Your task to perform on an android device: Open calendar and show me the fourth week of next month Image 0: 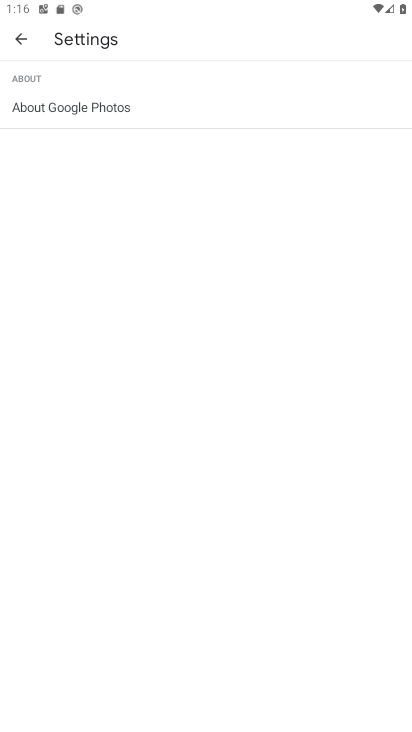
Step 0: press home button
Your task to perform on an android device: Open calendar and show me the fourth week of next month Image 1: 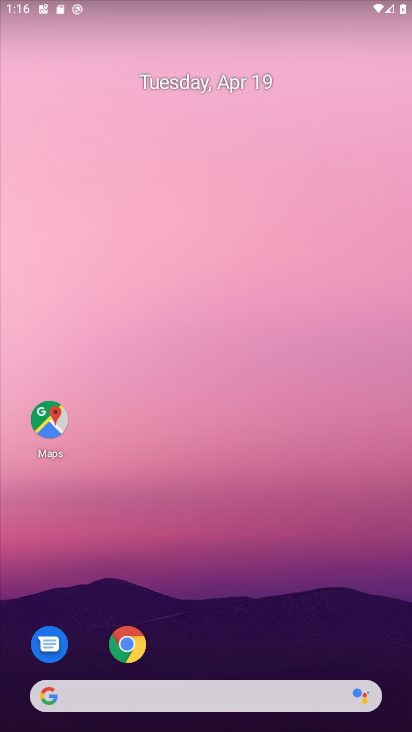
Step 1: drag from (153, 579) to (341, 64)
Your task to perform on an android device: Open calendar and show me the fourth week of next month Image 2: 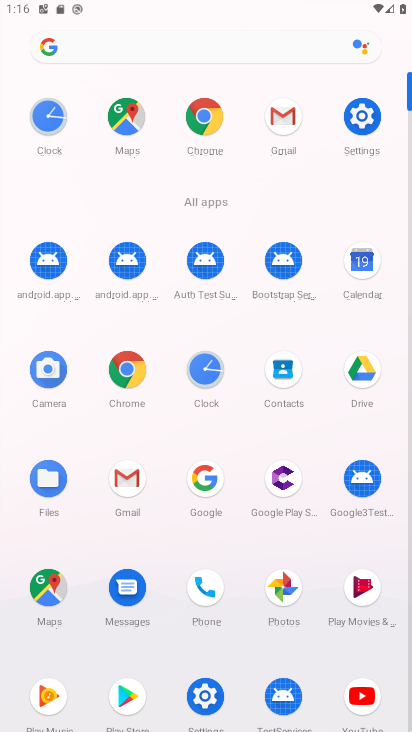
Step 2: click (359, 271)
Your task to perform on an android device: Open calendar and show me the fourth week of next month Image 3: 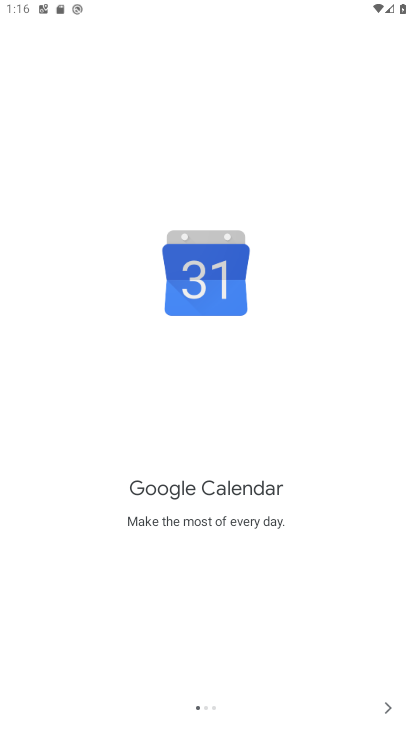
Step 3: click (387, 706)
Your task to perform on an android device: Open calendar and show me the fourth week of next month Image 4: 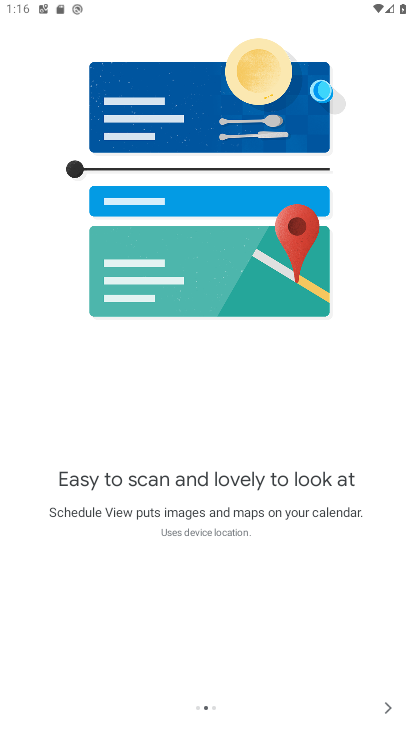
Step 4: click (388, 706)
Your task to perform on an android device: Open calendar and show me the fourth week of next month Image 5: 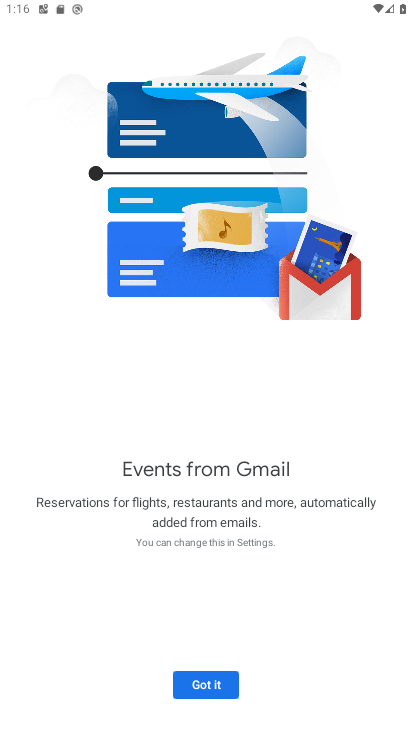
Step 5: click (232, 690)
Your task to perform on an android device: Open calendar and show me the fourth week of next month Image 6: 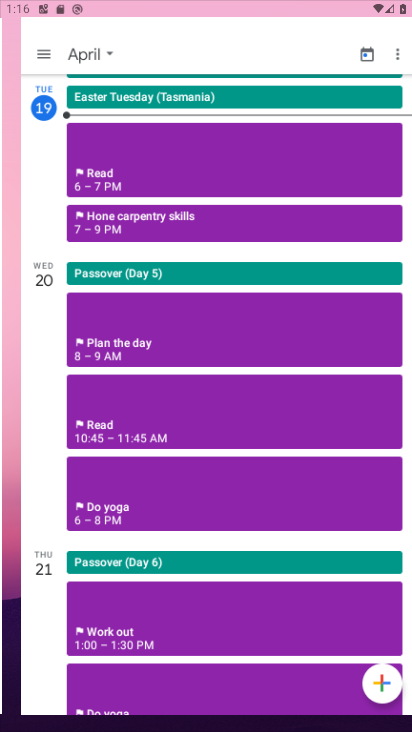
Step 6: click (202, 685)
Your task to perform on an android device: Open calendar and show me the fourth week of next month Image 7: 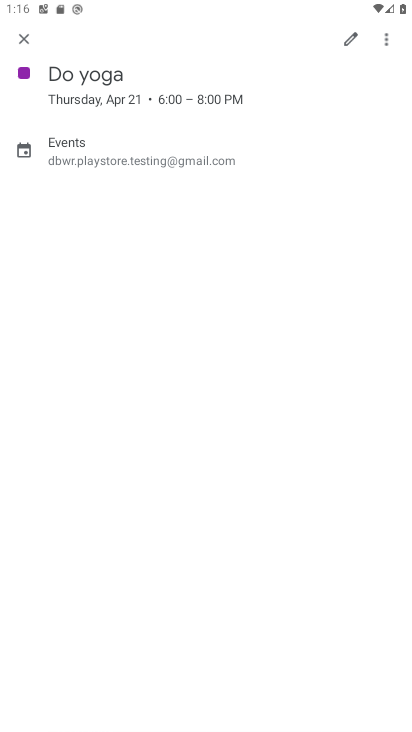
Step 7: click (30, 33)
Your task to perform on an android device: Open calendar and show me the fourth week of next month Image 8: 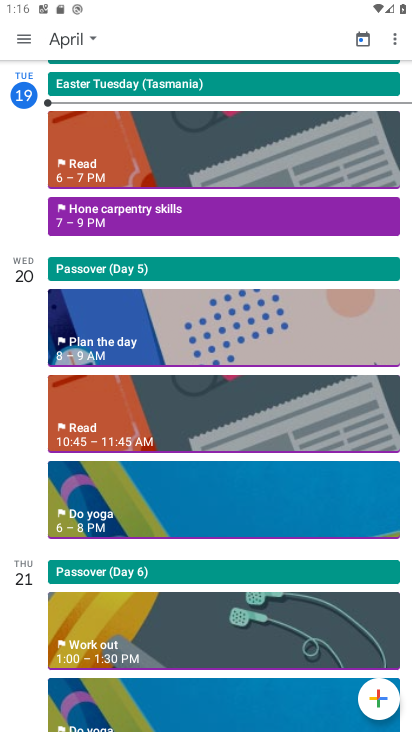
Step 8: click (24, 38)
Your task to perform on an android device: Open calendar and show me the fourth week of next month Image 9: 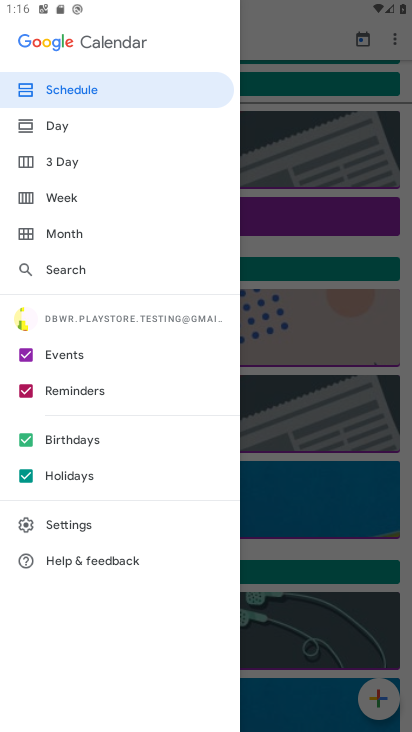
Step 9: click (74, 197)
Your task to perform on an android device: Open calendar and show me the fourth week of next month Image 10: 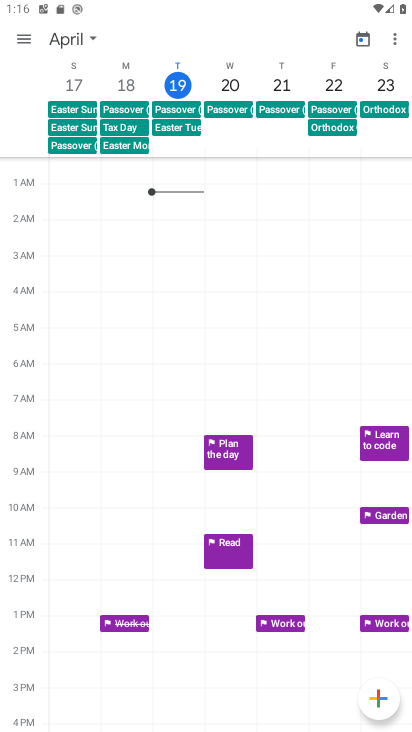
Step 10: task complete